Your task to perform on an android device: Open internet settings Image 0: 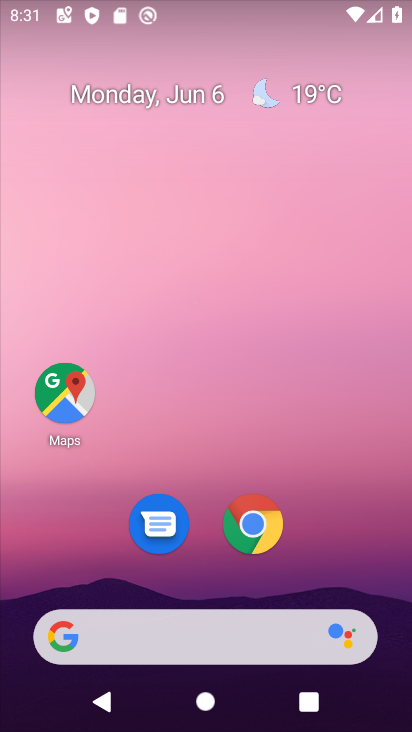
Step 0: drag from (332, 548) to (294, 26)
Your task to perform on an android device: Open internet settings Image 1: 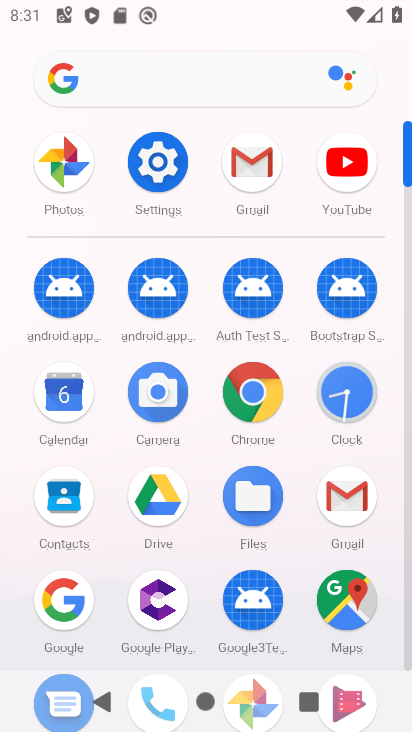
Step 1: click (178, 146)
Your task to perform on an android device: Open internet settings Image 2: 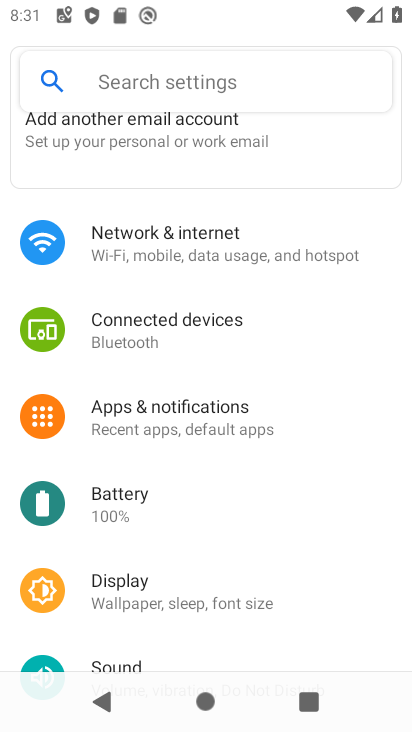
Step 2: click (211, 253)
Your task to perform on an android device: Open internet settings Image 3: 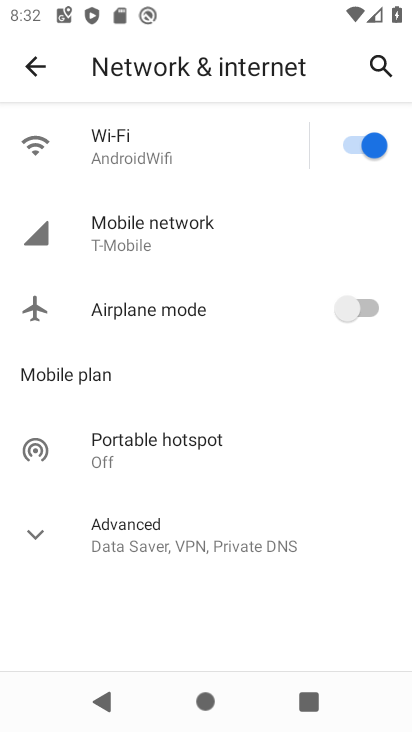
Step 3: task complete